Your task to perform on an android device: View the shopping cart on newegg.com. Add "bose soundlink" to the cart on newegg.com, then select checkout. Image 0: 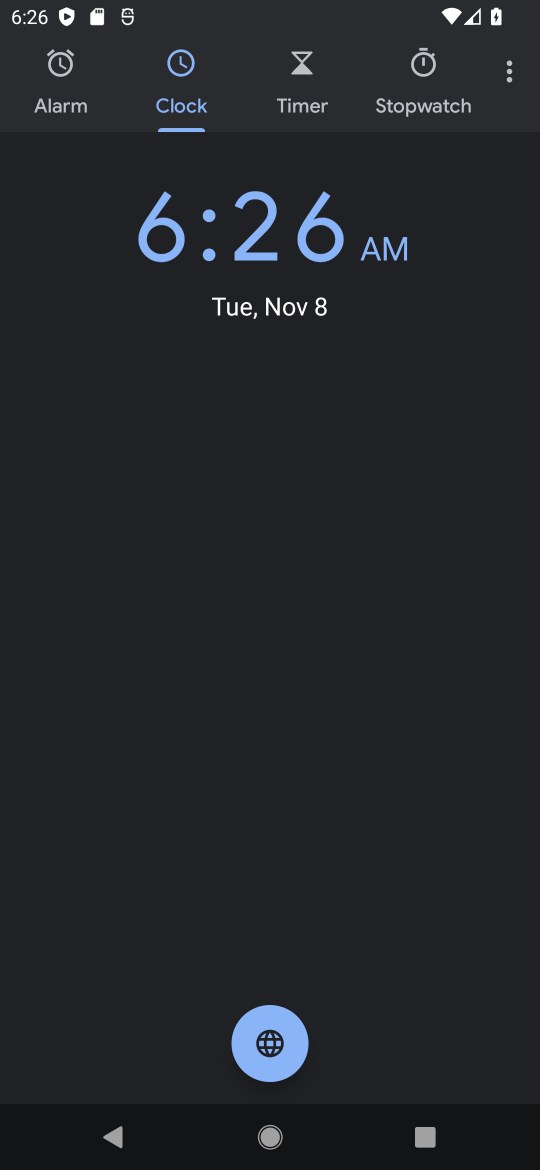
Step 0: press home button
Your task to perform on an android device: View the shopping cart on newegg.com. Add "bose soundlink" to the cart on newegg.com, then select checkout. Image 1: 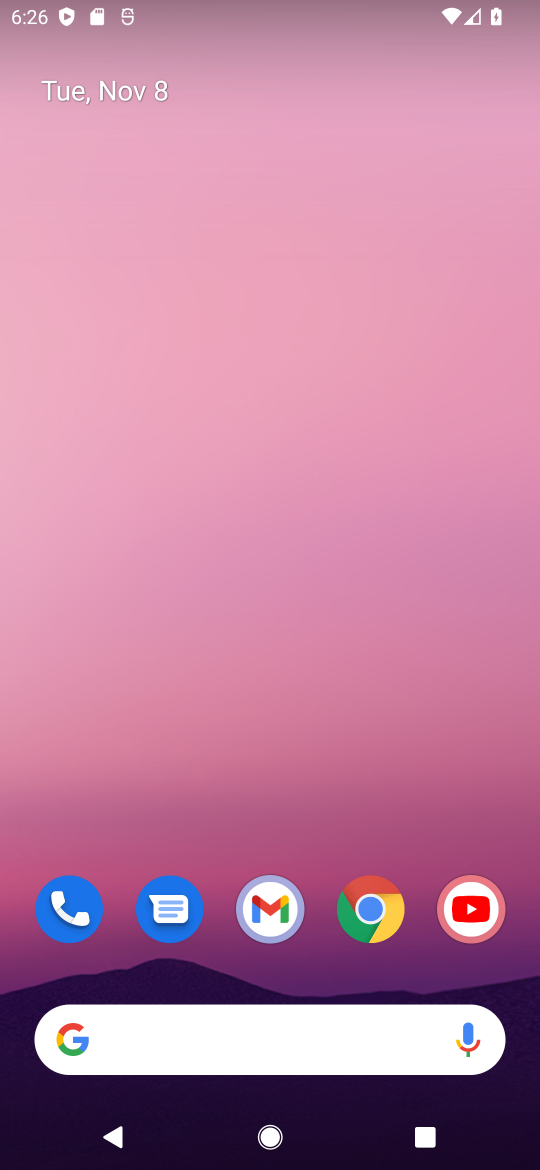
Step 1: click (378, 913)
Your task to perform on an android device: View the shopping cart on newegg.com. Add "bose soundlink" to the cart on newegg.com, then select checkout. Image 2: 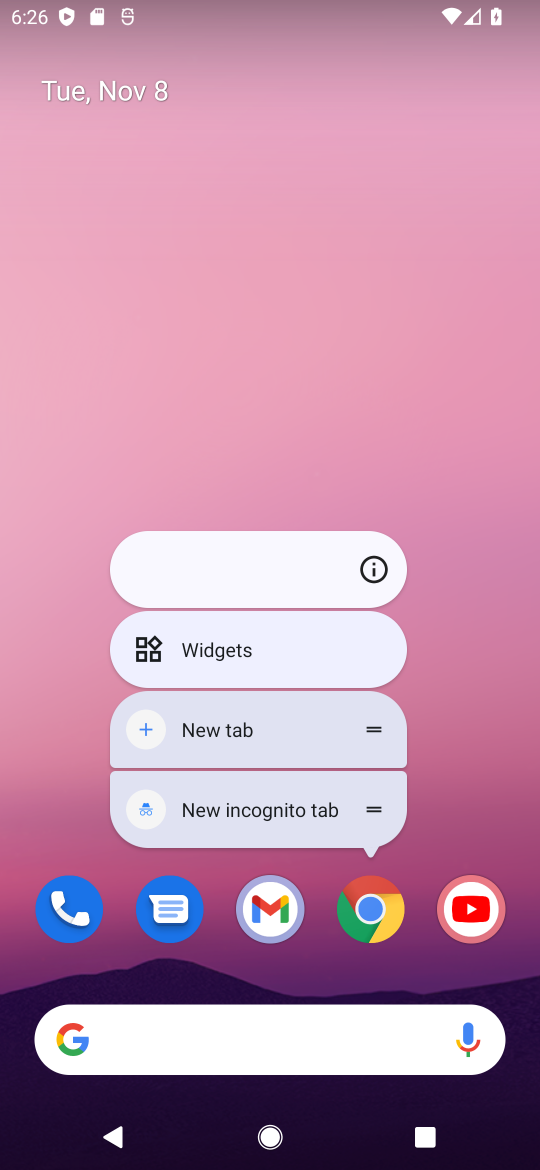
Step 2: click (366, 913)
Your task to perform on an android device: View the shopping cart on newegg.com. Add "bose soundlink" to the cart on newegg.com, then select checkout. Image 3: 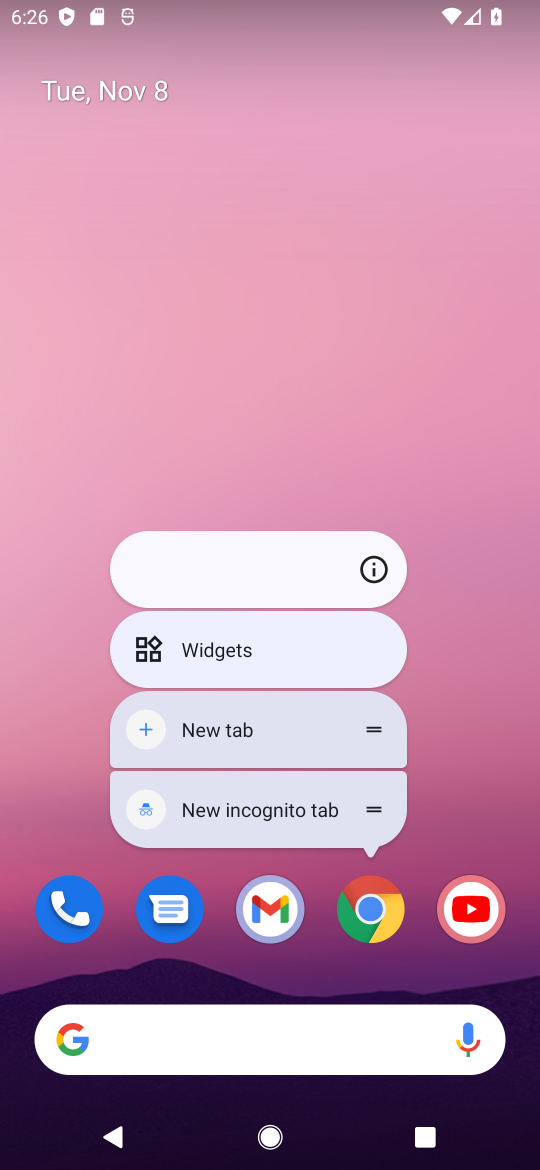
Step 3: click (370, 913)
Your task to perform on an android device: View the shopping cart on newegg.com. Add "bose soundlink" to the cart on newegg.com, then select checkout. Image 4: 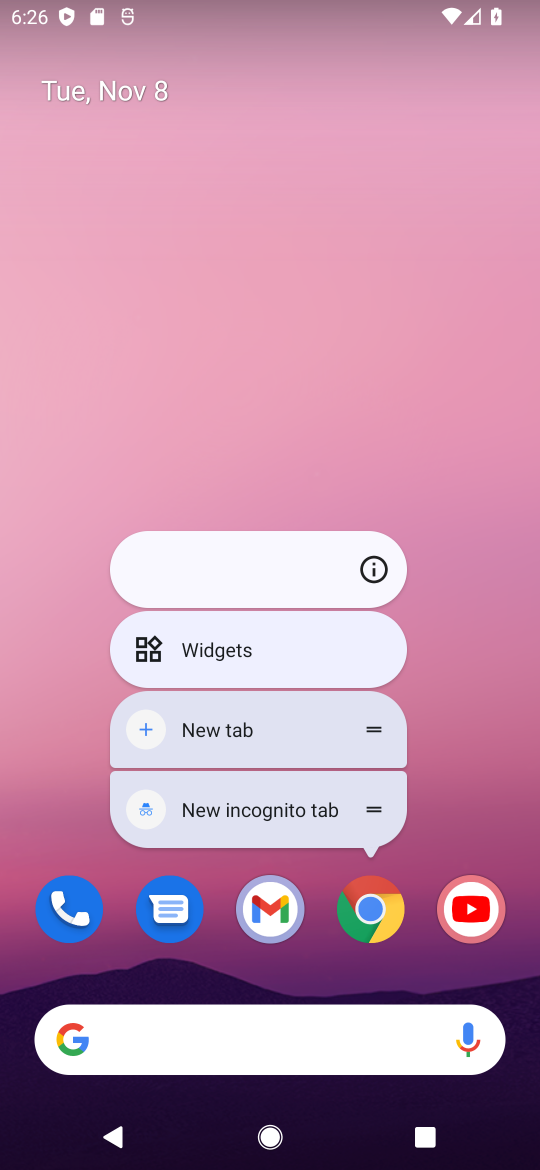
Step 4: click (370, 911)
Your task to perform on an android device: View the shopping cart on newegg.com. Add "bose soundlink" to the cart on newegg.com, then select checkout. Image 5: 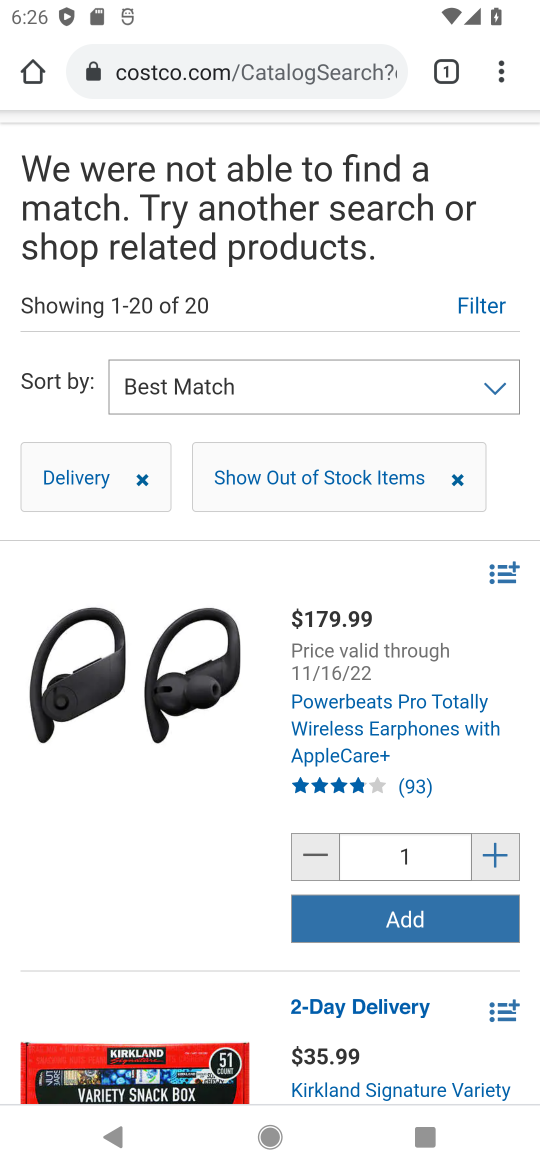
Step 5: click (206, 61)
Your task to perform on an android device: View the shopping cart on newegg.com. Add "bose soundlink" to the cart on newegg.com, then select checkout. Image 6: 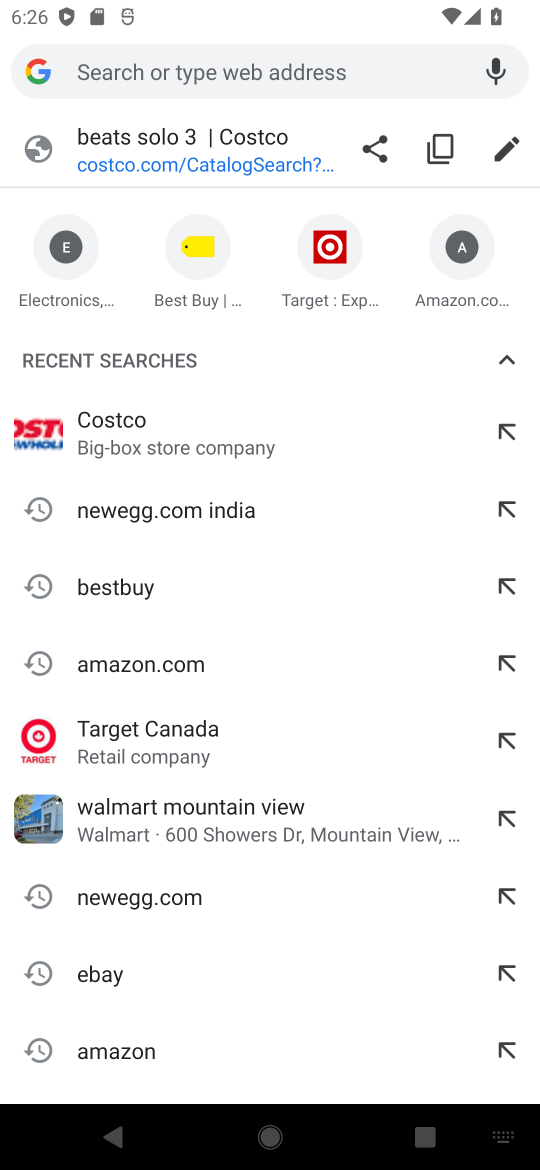
Step 6: click (131, 510)
Your task to perform on an android device: View the shopping cart on newegg.com. Add "bose soundlink" to the cart on newegg.com, then select checkout. Image 7: 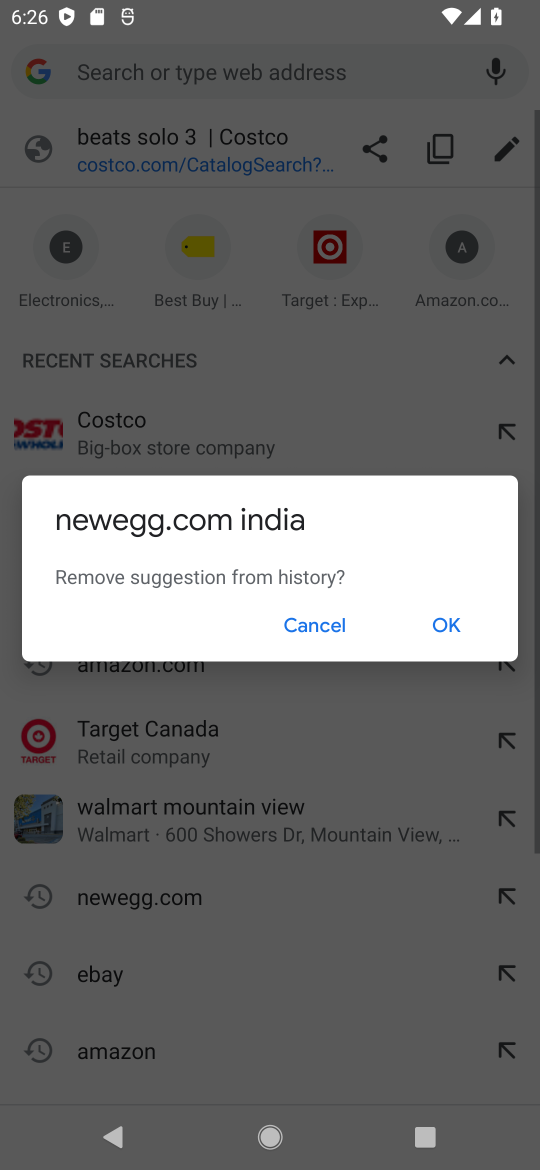
Step 7: click (330, 619)
Your task to perform on an android device: View the shopping cart on newegg.com. Add "bose soundlink" to the cart on newegg.com, then select checkout. Image 8: 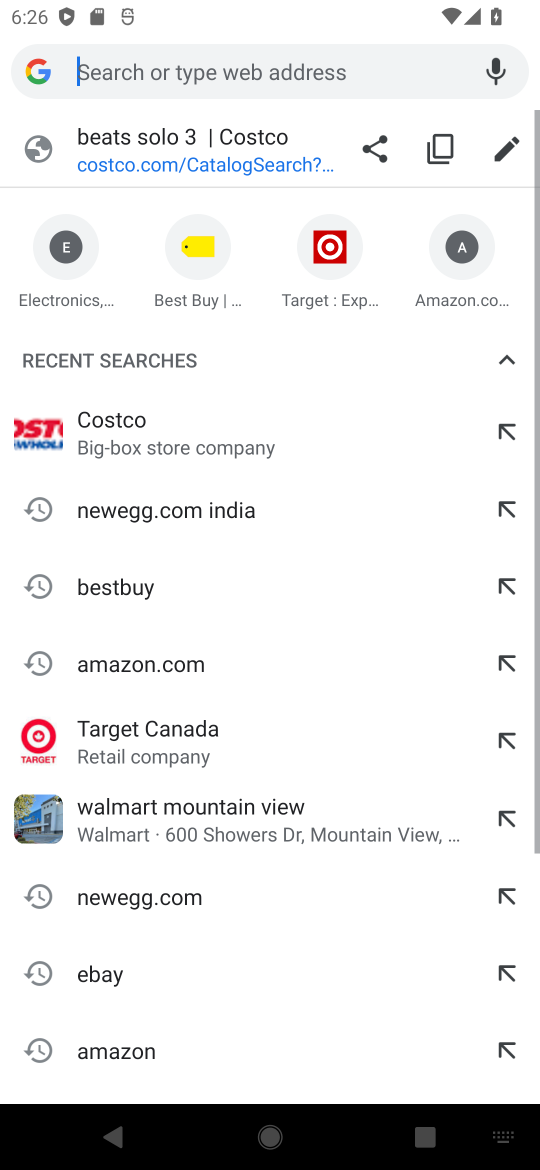
Step 8: click (111, 495)
Your task to perform on an android device: View the shopping cart on newegg.com. Add "bose soundlink" to the cart on newegg.com, then select checkout. Image 9: 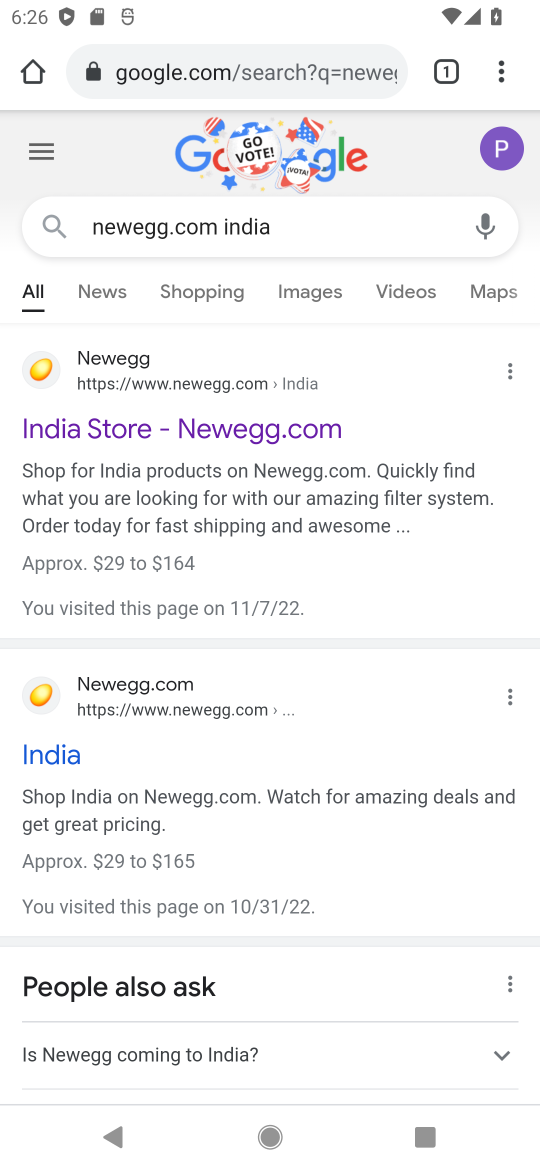
Step 9: click (221, 427)
Your task to perform on an android device: View the shopping cart on newegg.com. Add "bose soundlink" to the cart on newegg.com, then select checkout. Image 10: 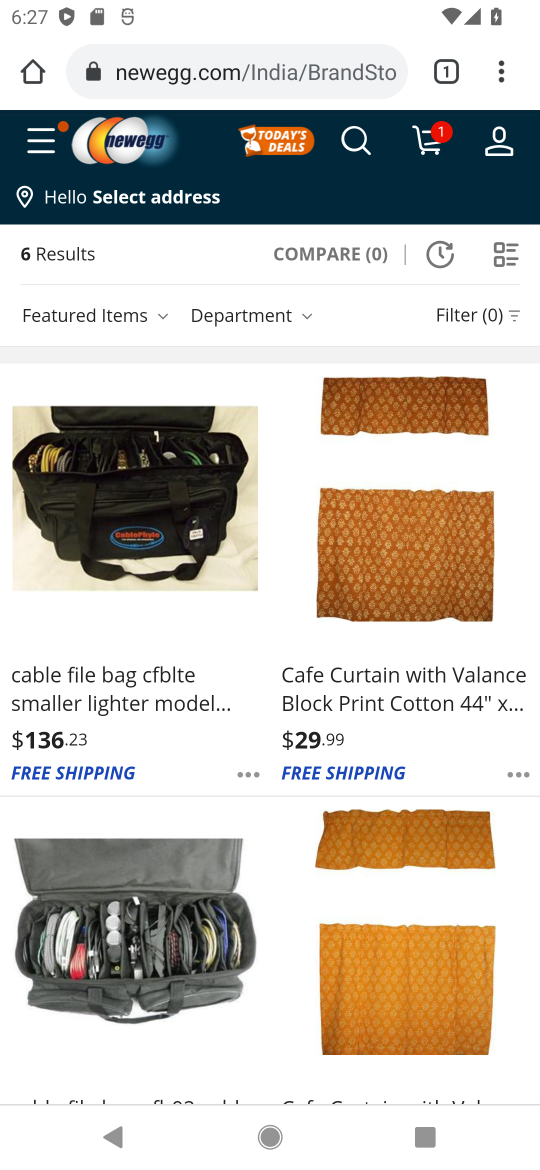
Step 10: click (445, 138)
Your task to perform on an android device: View the shopping cart on newegg.com. Add "bose soundlink" to the cart on newegg.com, then select checkout. Image 11: 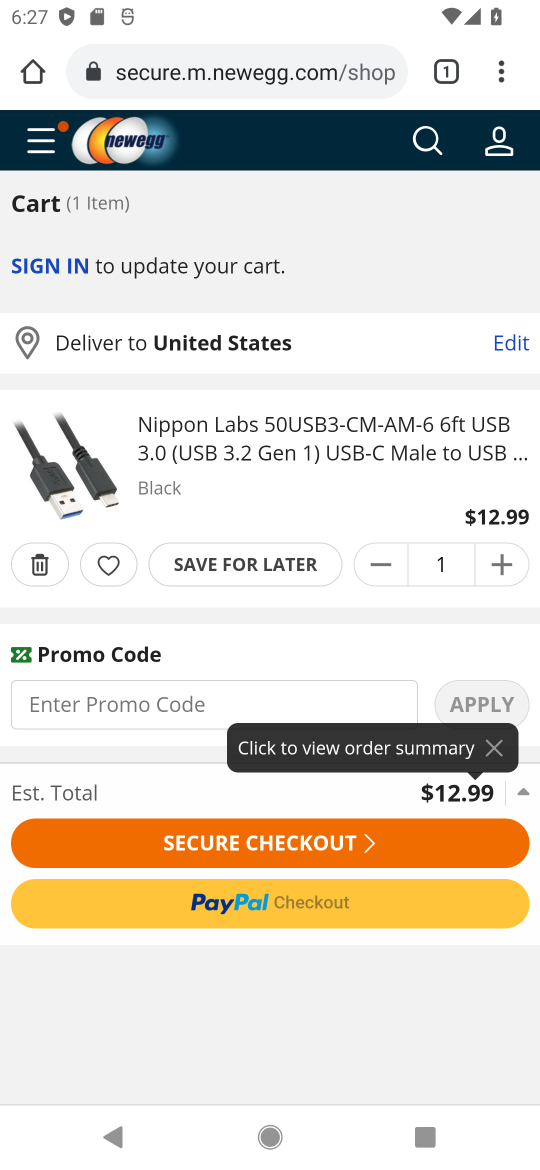
Step 11: click (29, 555)
Your task to perform on an android device: View the shopping cart on newegg.com. Add "bose soundlink" to the cart on newegg.com, then select checkout. Image 12: 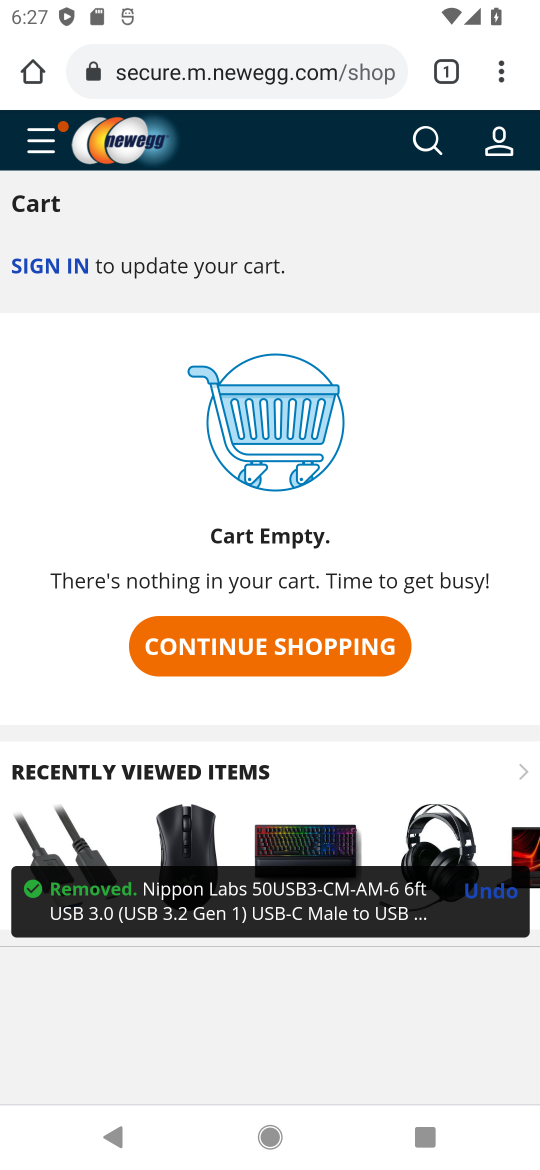
Step 12: click (426, 132)
Your task to perform on an android device: View the shopping cart on newegg.com. Add "bose soundlink" to the cart on newegg.com, then select checkout. Image 13: 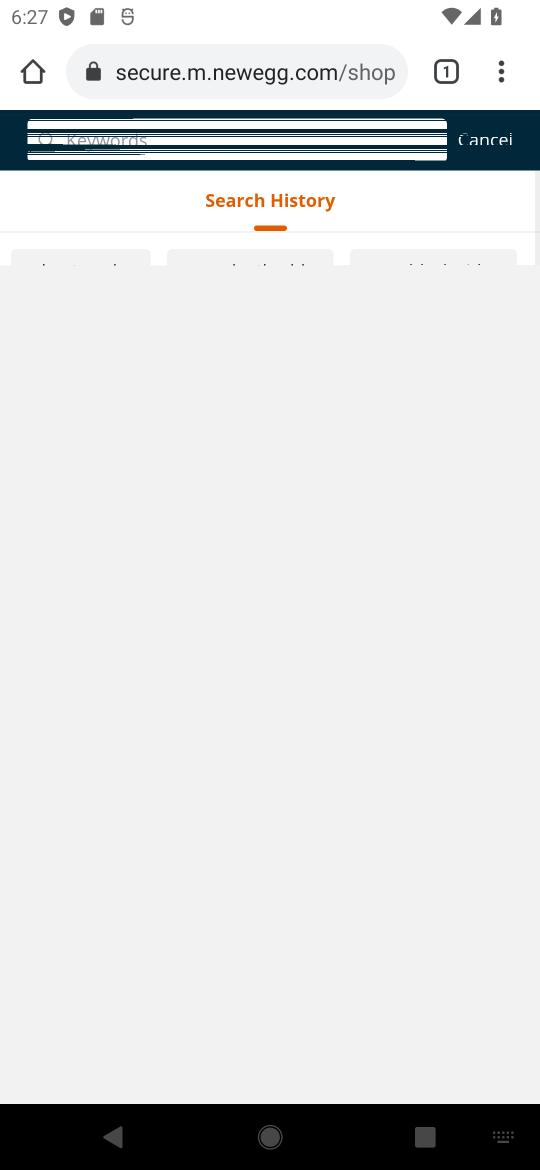
Step 13: click (207, 113)
Your task to perform on an android device: View the shopping cart on newegg.com. Add "bose soundlink" to the cart on newegg.com, then select checkout. Image 14: 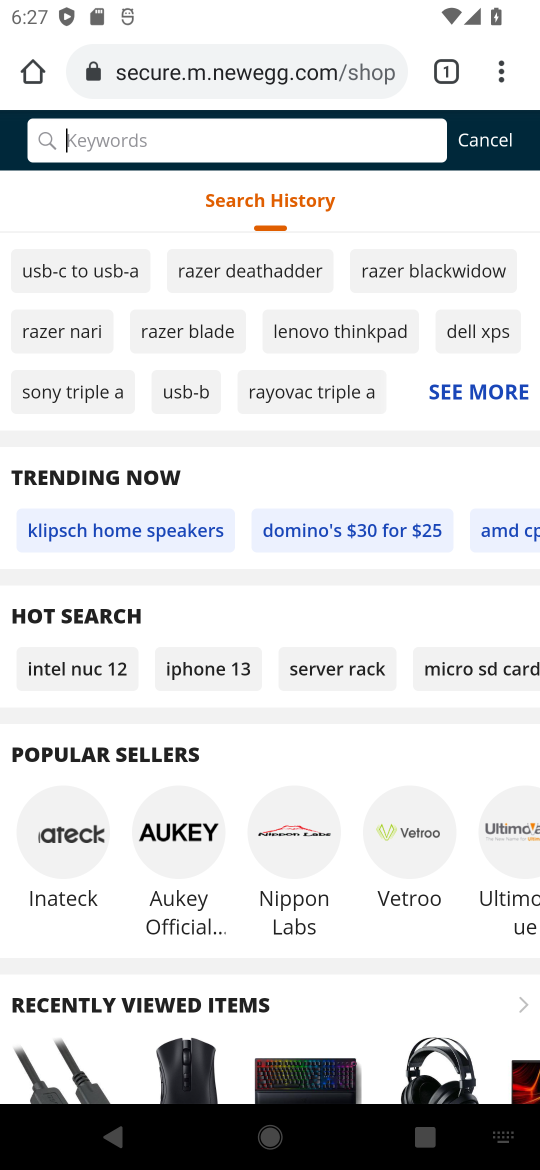
Step 14: type "bose soundlink"
Your task to perform on an android device: View the shopping cart on newegg.com. Add "bose soundlink" to the cart on newegg.com, then select checkout. Image 15: 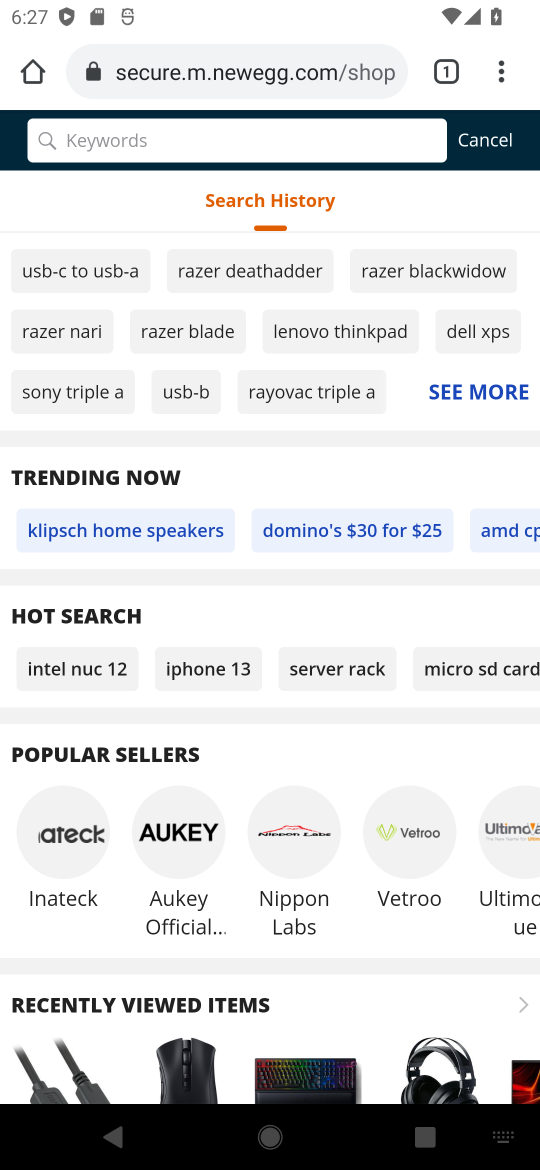
Step 15: press enter
Your task to perform on an android device: View the shopping cart on newegg.com. Add "bose soundlink" to the cart on newegg.com, then select checkout. Image 16: 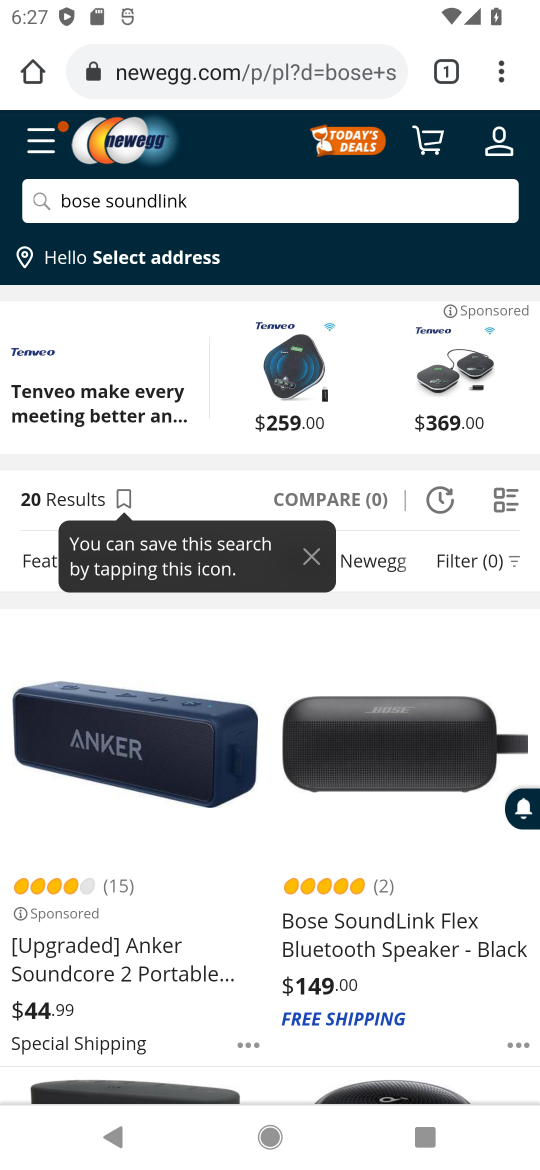
Step 16: drag from (195, 918) to (321, 652)
Your task to perform on an android device: View the shopping cart on newegg.com. Add "bose soundlink" to the cart on newegg.com, then select checkout. Image 17: 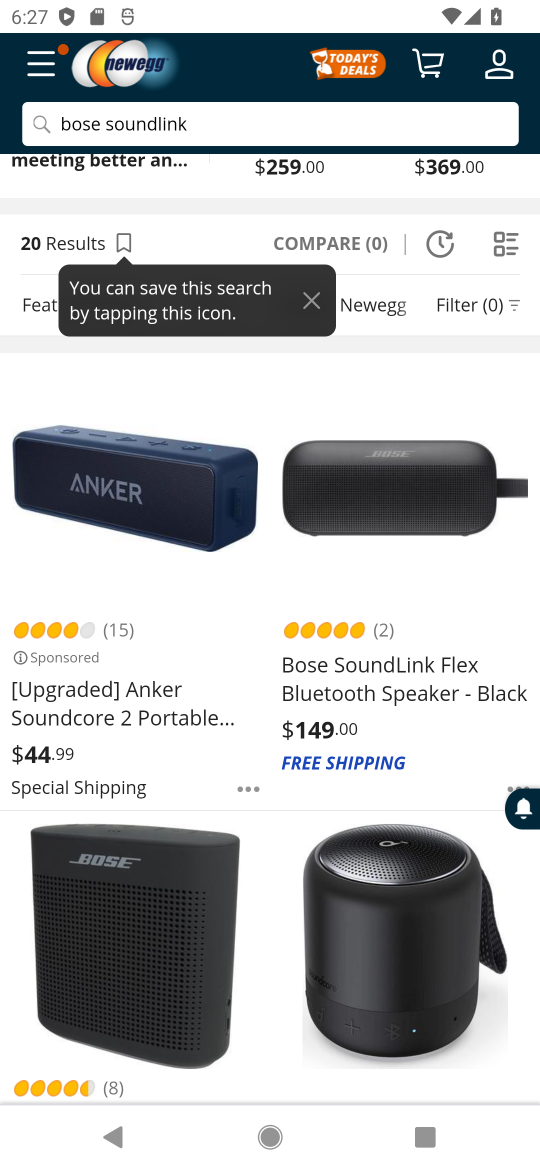
Step 17: click (368, 664)
Your task to perform on an android device: View the shopping cart on newegg.com. Add "bose soundlink" to the cart on newegg.com, then select checkout. Image 18: 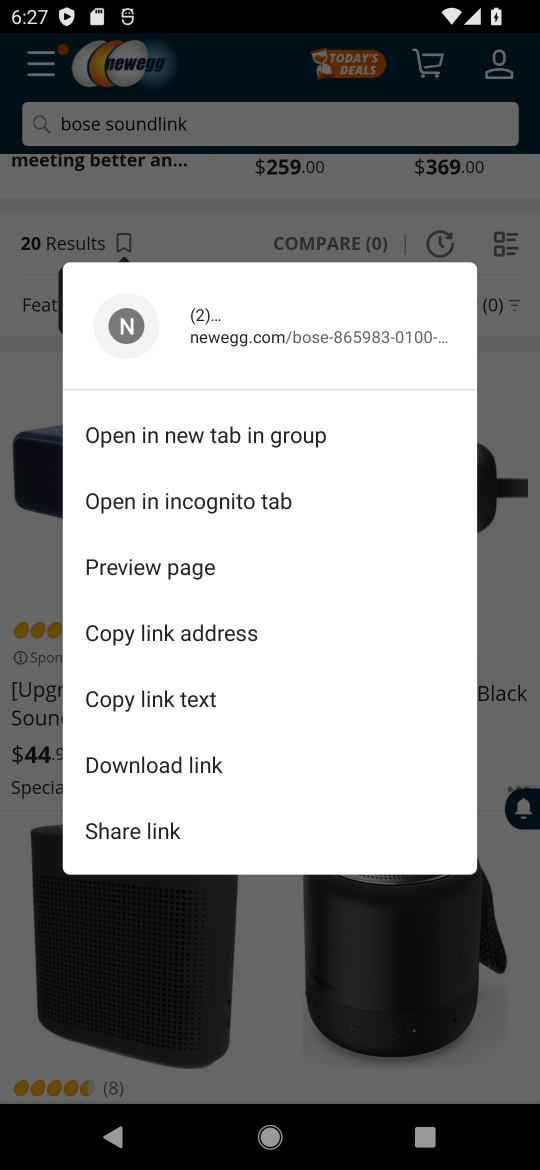
Step 18: click (502, 606)
Your task to perform on an android device: View the shopping cart on newegg.com. Add "bose soundlink" to the cart on newegg.com, then select checkout. Image 19: 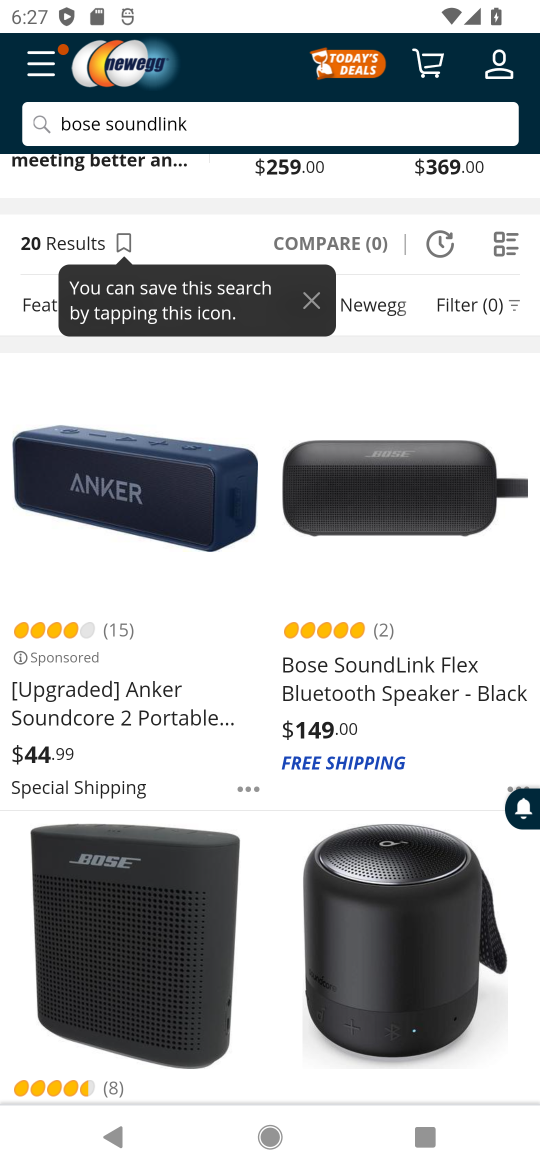
Step 19: click (379, 667)
Your task to perform on an android device: View the shopping cart on newegg.com. Add "bose soundlink" to the cart on newegg.com, then select checkout. Image 20: 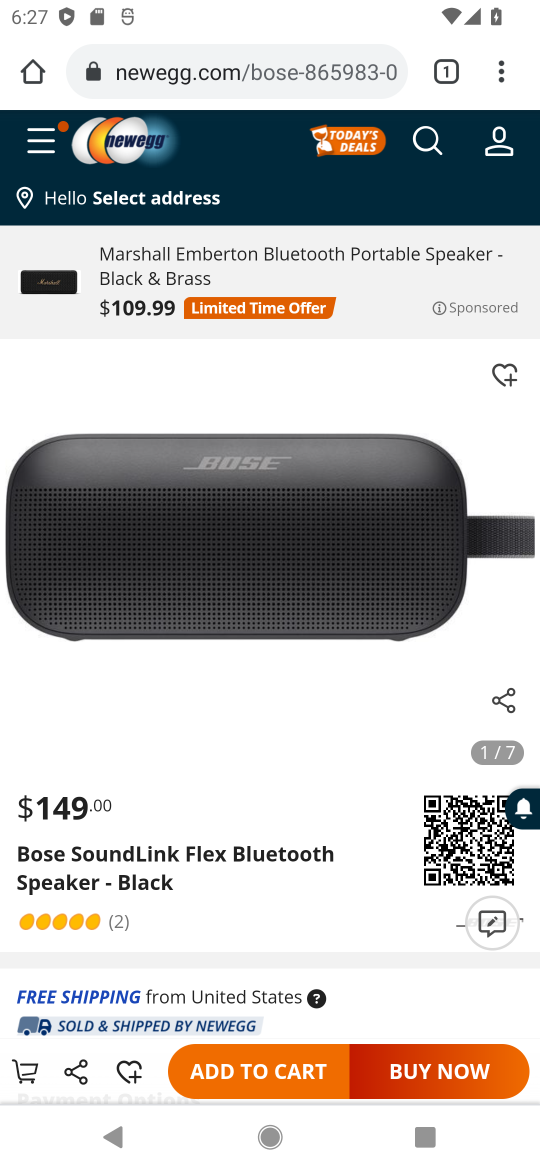
Step 20: click (230, 1067)
Your task to perform on an android device: View the shopping cart on newegg.com. Add "bose soundlink" to the cart on newegg.com, then select checkout. Image 21: 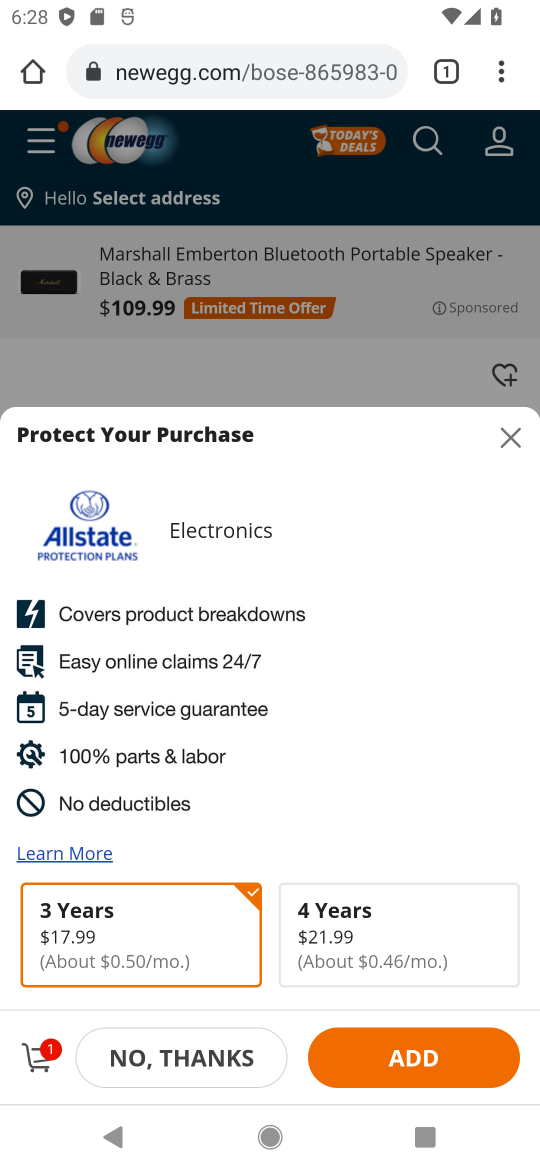
Step 21: click (45, 1052)
Your task to perform on an android device: View the shopping cart on newegg.com. Add "bose soundlink" to the cart on newegg.com, then select checkout. Image 22: 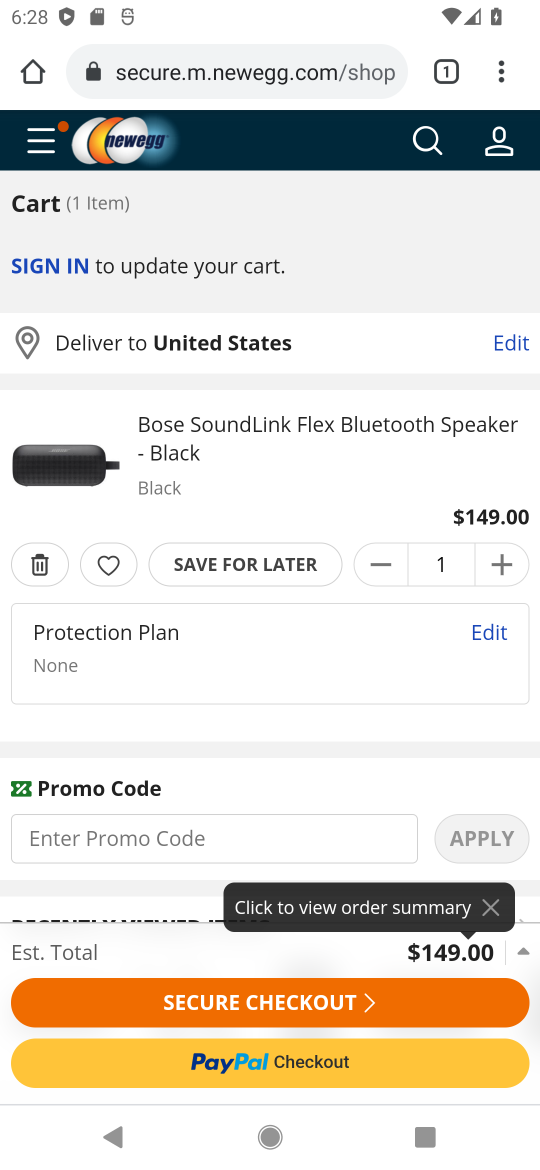
Step 22: click (328, 1006)
Your task to perform on an android device: View the shopping cart on newegg.com. Add "bose soundlink" to the cart on newegg.com, then select checkout. Image 23: 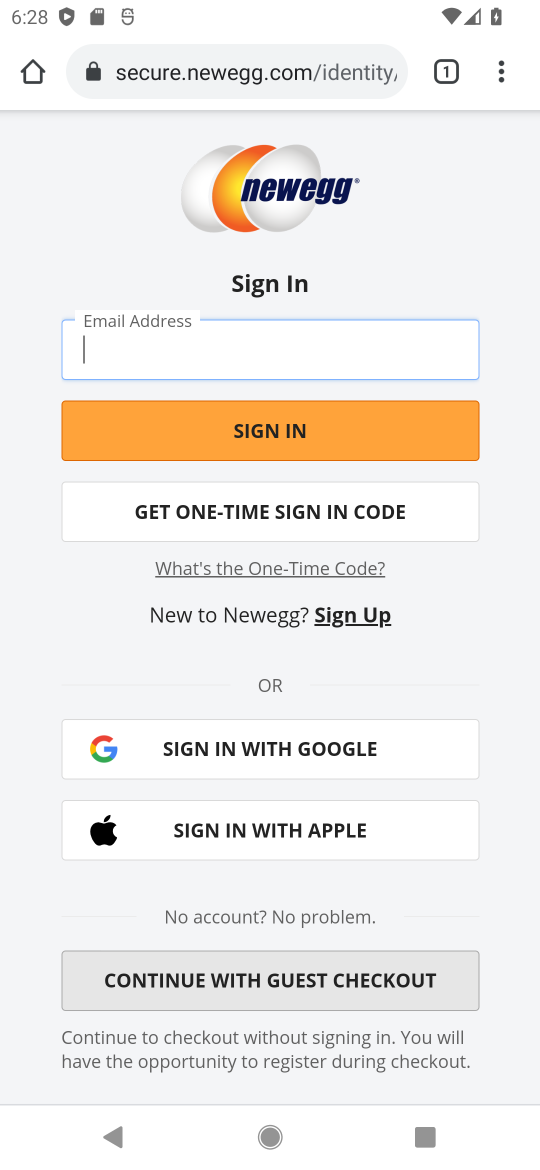
Step 23: task complete